Your task to perform on an android device: Go to Google maps Image 0: 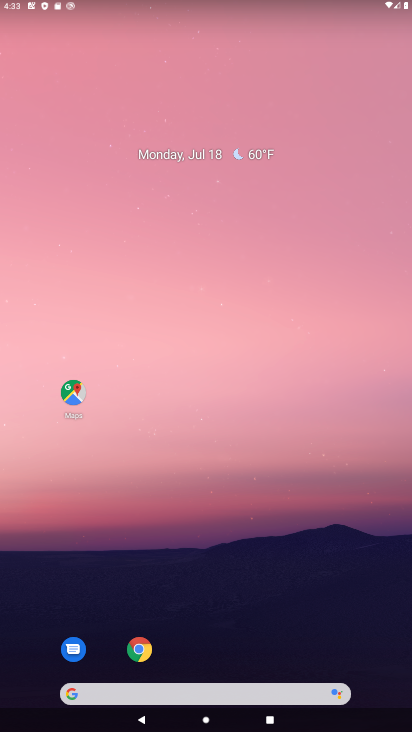
Step 0: click (75, 394)
Your task to perform on an android device: Go to Google maps Image 1: 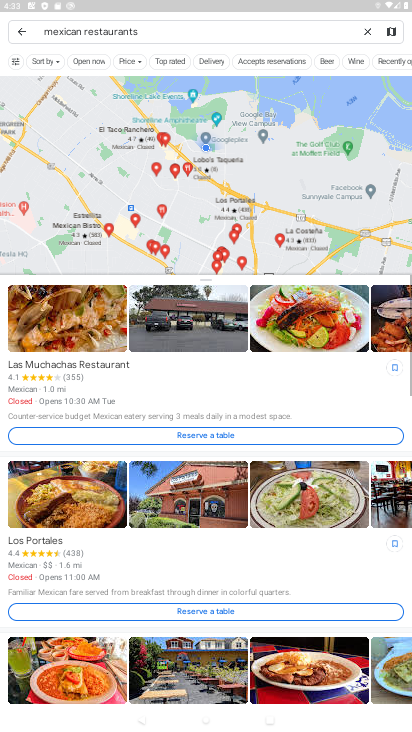
Step 1: click (17, 33)
Your task to perform on an android device: Go to Google maps Image 2: 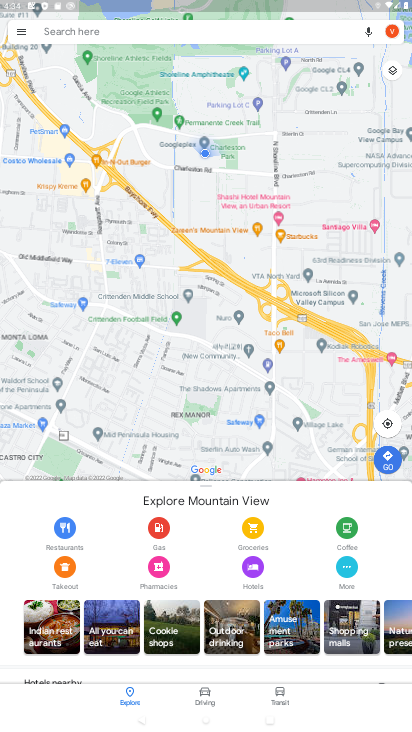
Step 2: task complete